Your task to perform on an android device: Do I have any events this weekend? Image 0: 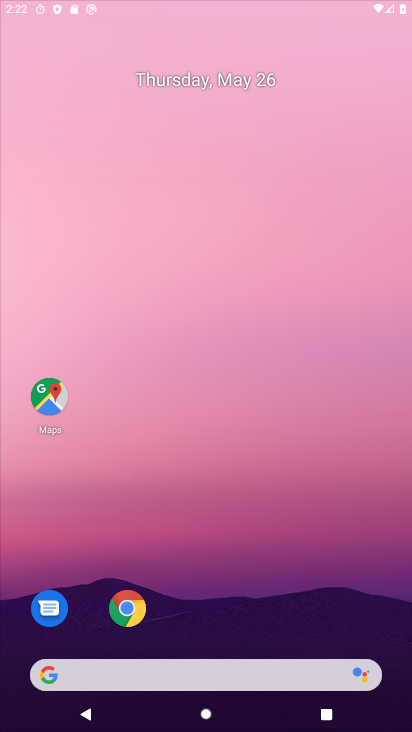
Step 0: drag from (268, 561) to (216, 258)
Your task to perform on an android device: Do I have any events this weekend? Image 1: 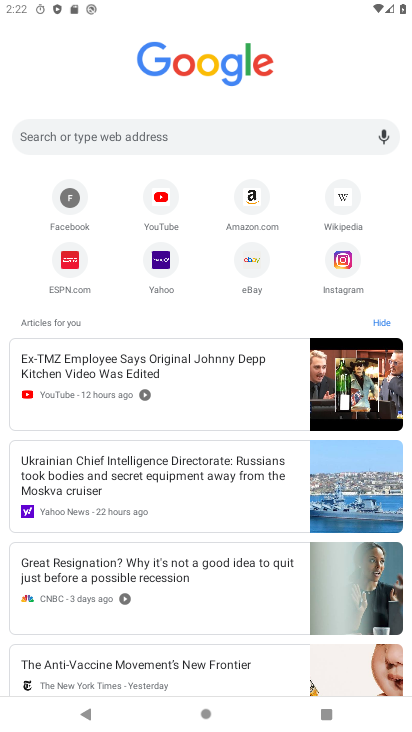
Step 1: press back button
Your task to perform on an android device: Do I have any events this weekend? Image 2: 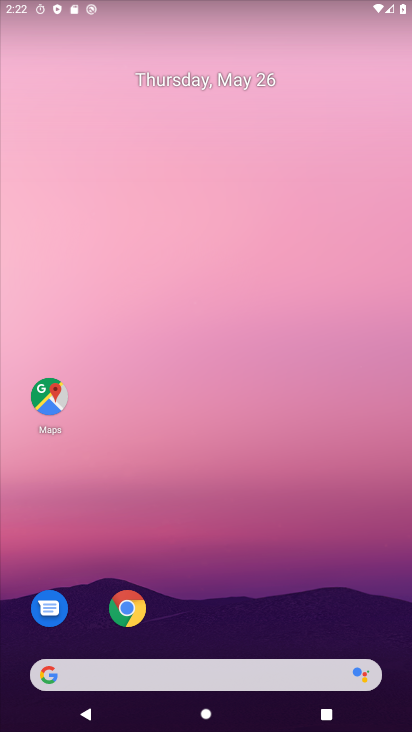
Step 2: drag from (263, 659) to (165, 35)
Your task to perform on an android device: Do I have any events this weekend? Image 3: 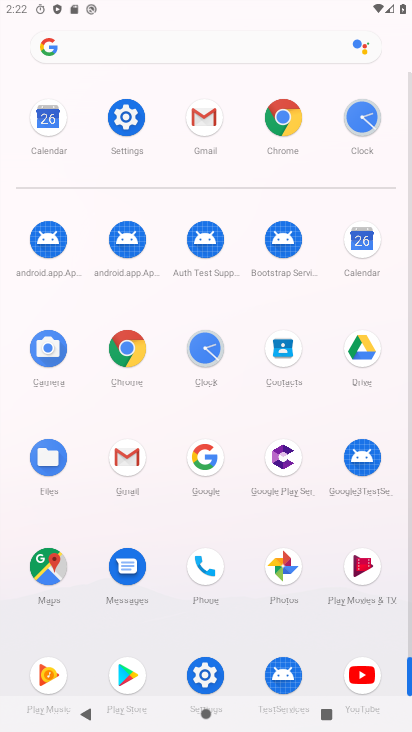
Step 3: drag from (200, 624) to (180, 254)
Your task to perform on an android device: Do I have any events this weekend? Image 4: 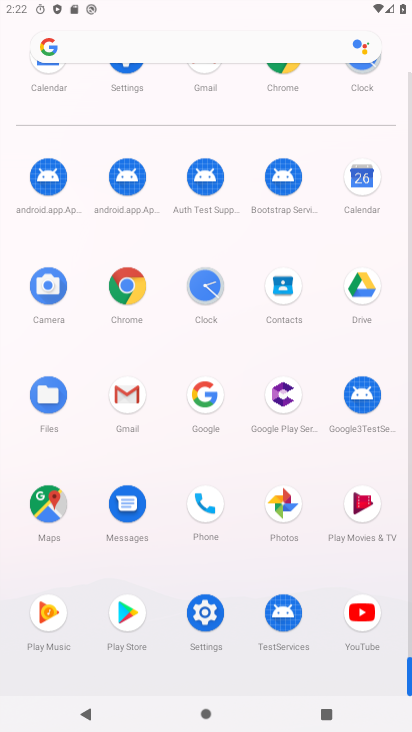
Step 4: drag from (171, 490) to (171, 98)
Your task to perform on an android device: Do I have any events this weekend? Image 5: 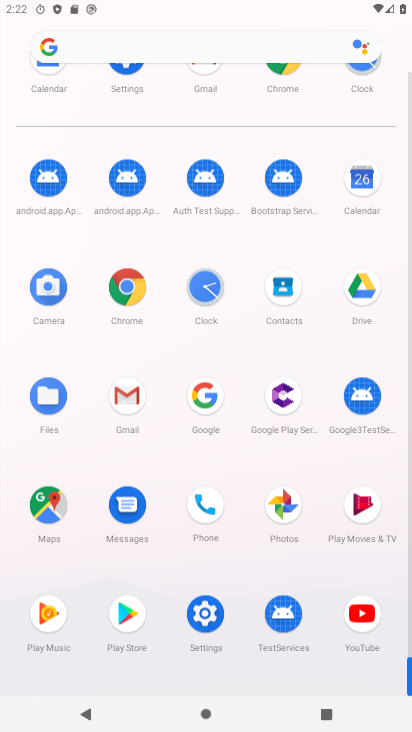
Step 5: drag from (182, 465) to (161, 224)
Your task to perform on an android device: Do I have any events this weekend? Image 6: 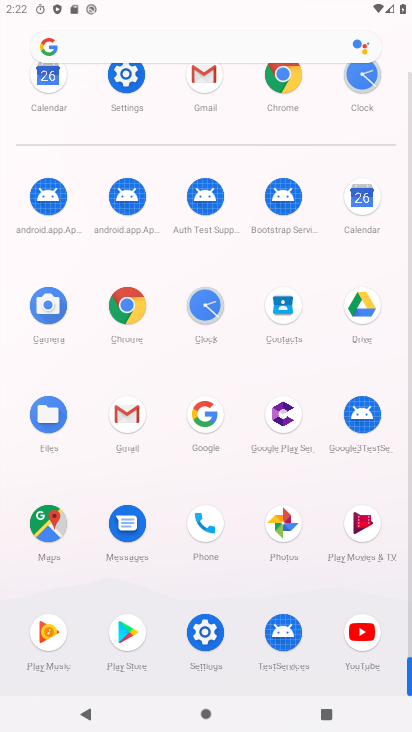
Step 6: click (362, 204)
Your task to perform on an android device: Do I have any events this weekend? Image 7: 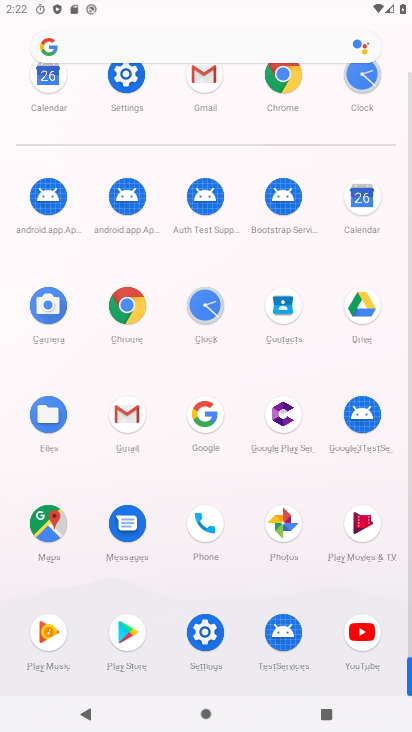
Step 7: click (362, 204)
Your task to perform on an android device: Do I have any events this weekend? Image 8: 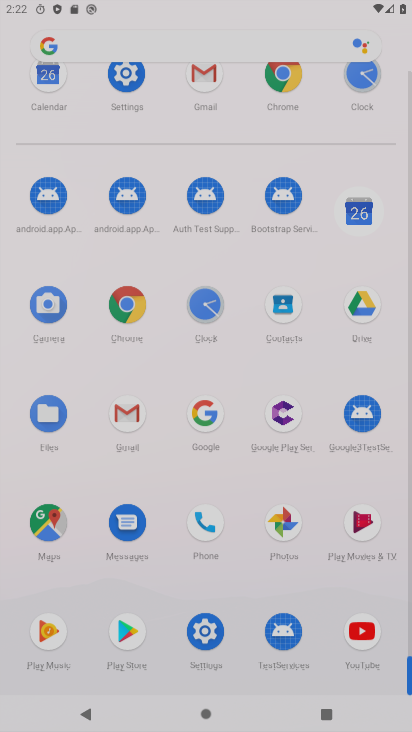
Step 8: click (363, 203)
Your task to perform on an android device: Do I have any events this weekend? Image 9: 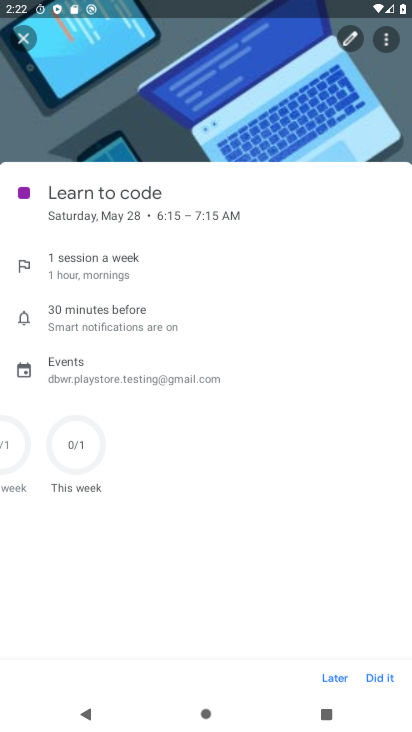
Step 9: click (364, 203)
Your task to perform on an android device: Do I have any events this weekend? Image 10: 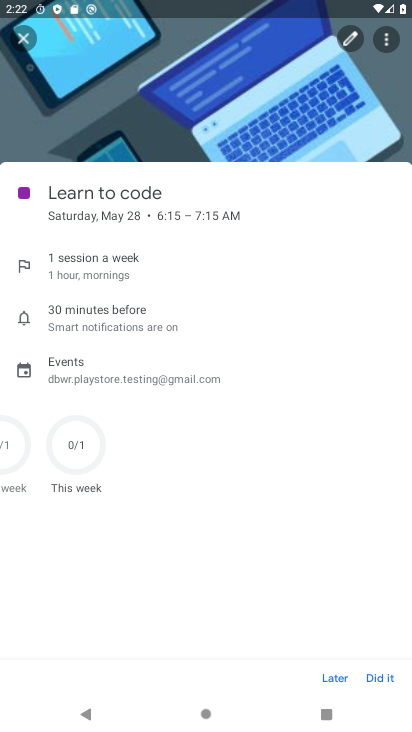
Step 10: task complete